Your task to perform on an android device: Go to display settings Image 0: 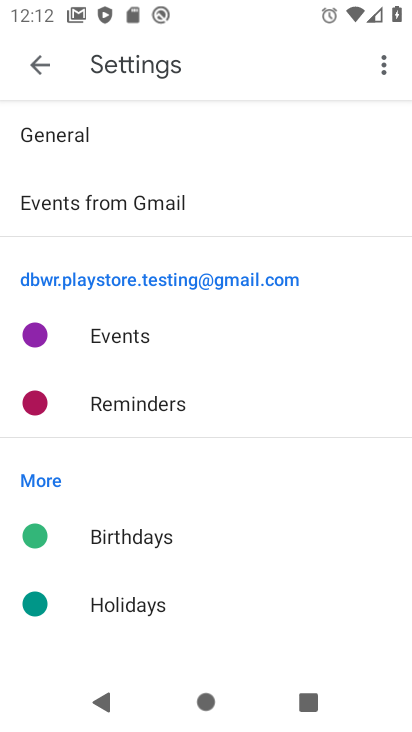
Step 0: press home button
Your task to perform on an android device: Go to display settings Image 1: 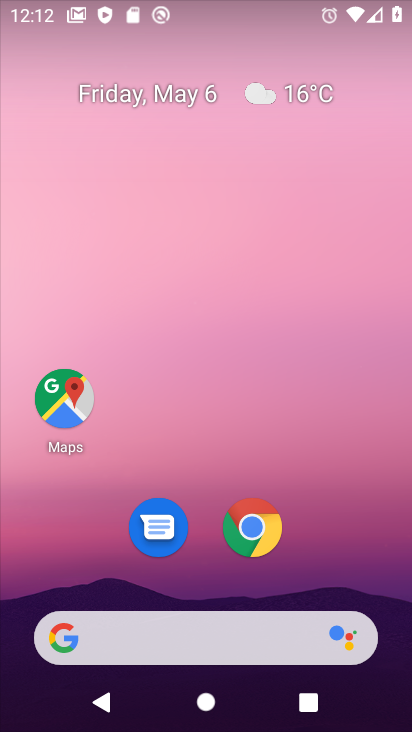
Step 1: drag from (313, 561) to (31, 44)
Your task to perform on an android device: Go to display settings Image 2: 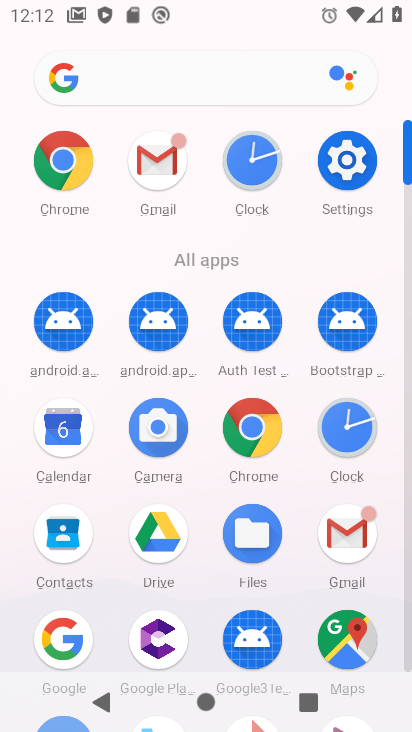
Step 2: click (350, 170)
Your task to perform on an android device: Go to display settings Image 3: 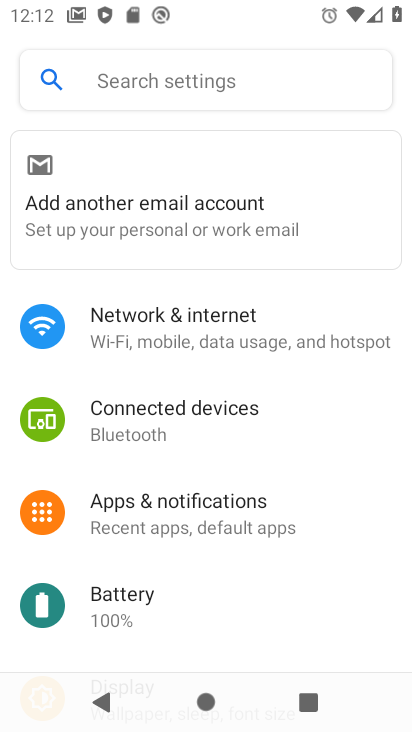
Step 3: drag from (189, 624) to (193, 435)
Your task to perform on an android device: Go to display settings Image 4: 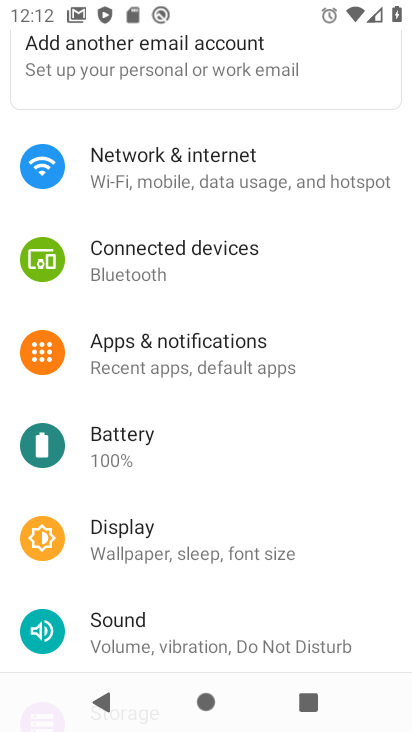
Step 4: click (69, 538)
Your task to perform on an android device: Go to display settings Image 5: 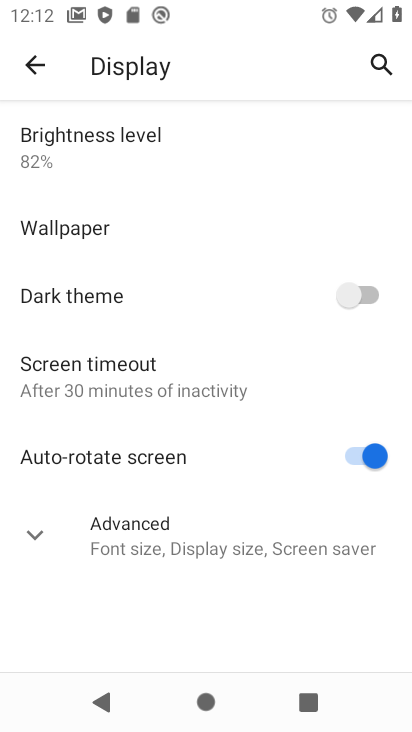
Step 5: click (129, 554)
Your task to perform on an android device: Go to display settings Image 6: 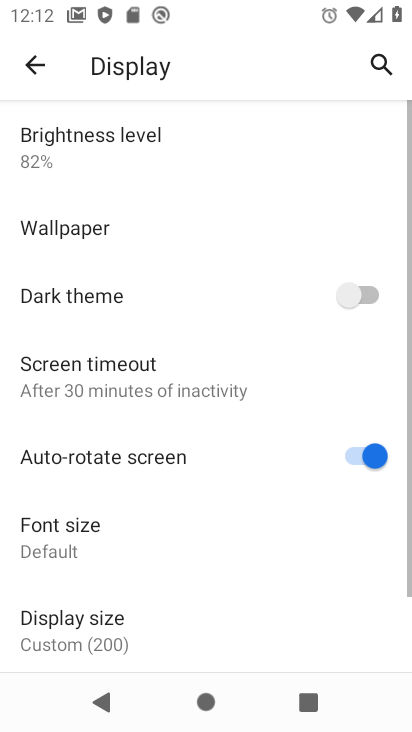
Step 6: drag from (126, 617) to (137, 193)
Your task to perform on an android device: Go to display settings Image 7: 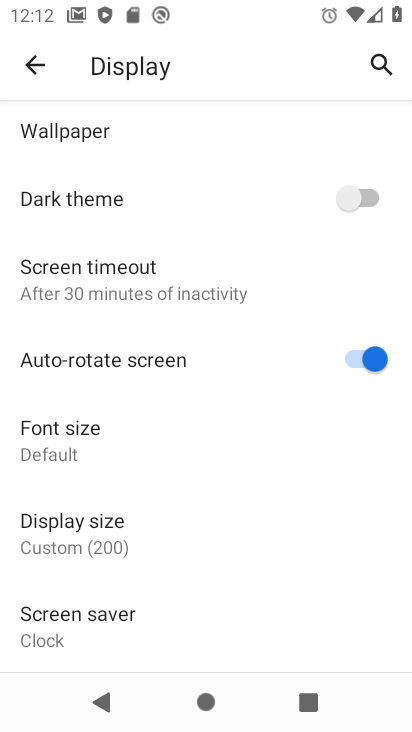
Step 7: click (94, 538)
Your task to perform on an android device: Go to display settings Image 8: 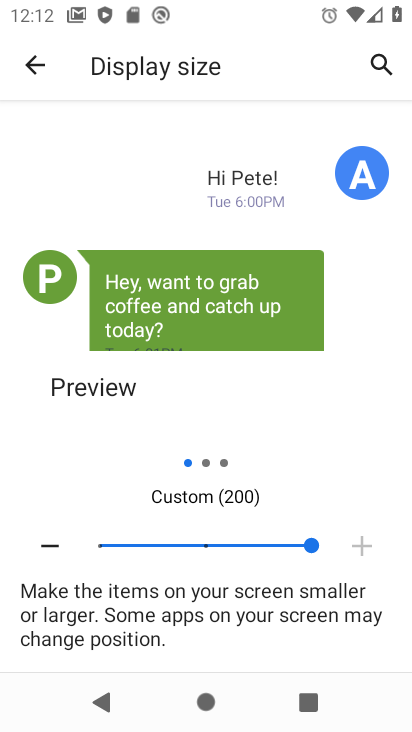
Step 8: click (41, 62)
Your task to perform on an android device: Go to display settings Image 9: 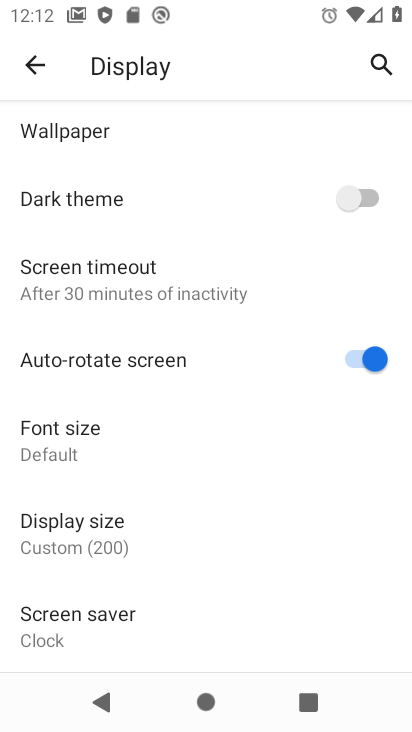
Step 9: task complete